Your task to perform on an android device: Go to privacy settings Image 0: 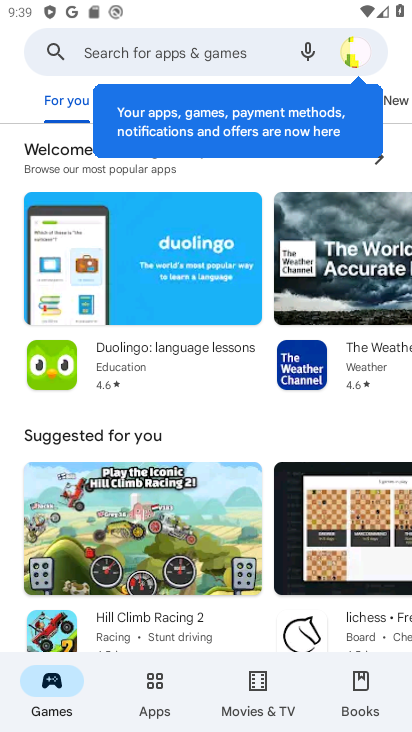
Step 0: press home button
Your task to perform on an android device: Go to privacy settings Image 1: 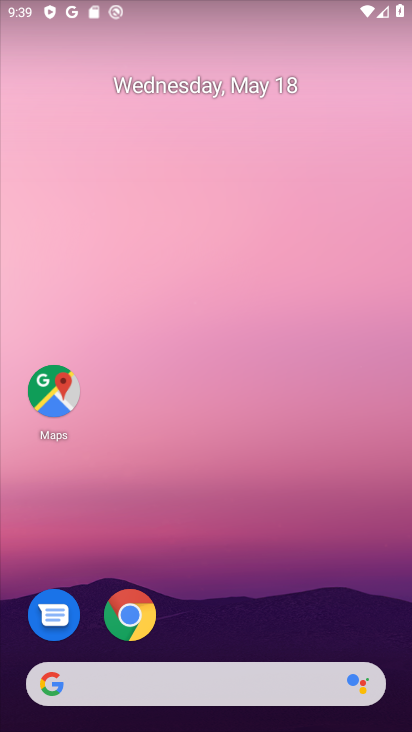
Step 1: drag from (352, 559) to (340, 126)
Your task to perform on an android device: Go to privacy settings Image 2: 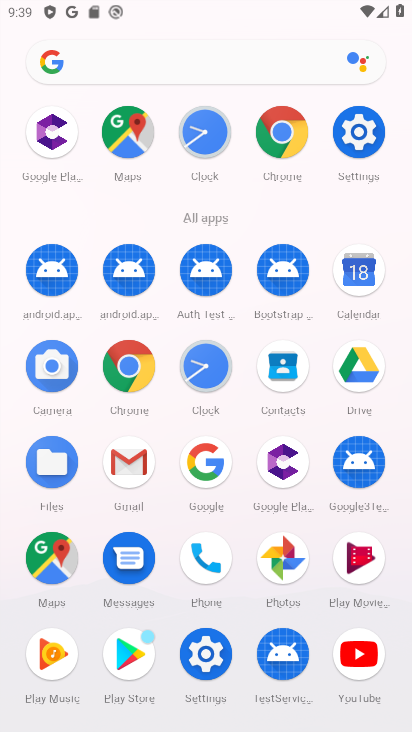
Step 2: click (351, 129)
Your task to perform on an android device: Go to privacy settings Image 3: 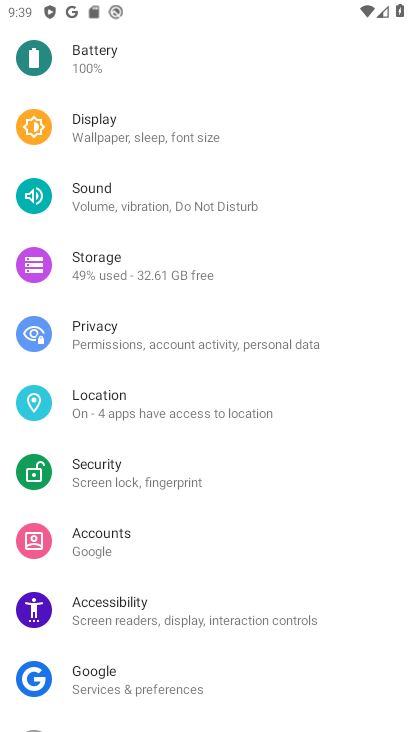
Step 3: drag from (210, 627) to (188, 417)
Your task to perform on an android device: Go to privacy settings Image 4: 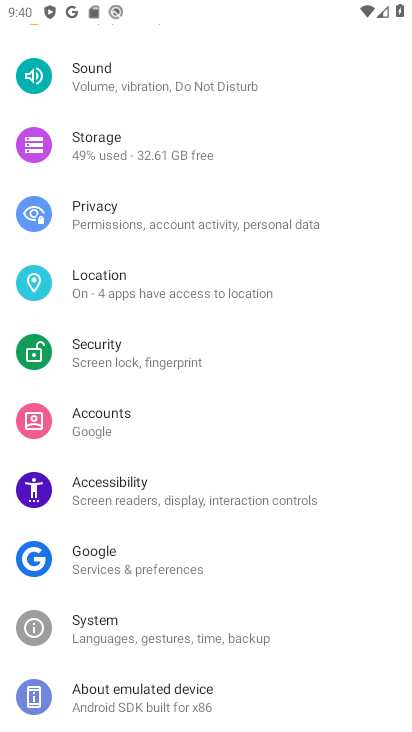
Step 4: click (142, 219)
Your task to perform on an android device: Go to privacy settings Image 5: 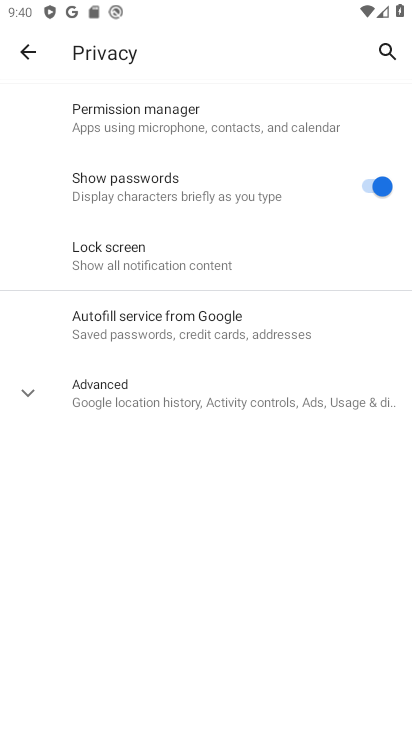
Step 5: task complete